Your task to perform on an android device: toggle location history Image 0: 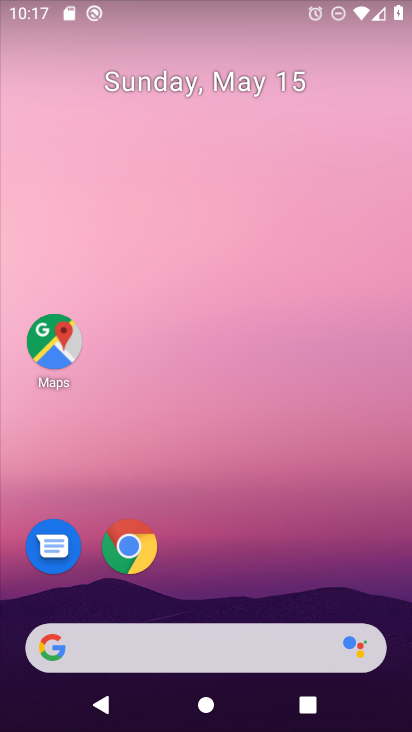
Step 0: drag from (300, 488) to (325, 64)
Your task to perform on an android device: toggle location history Image 1: 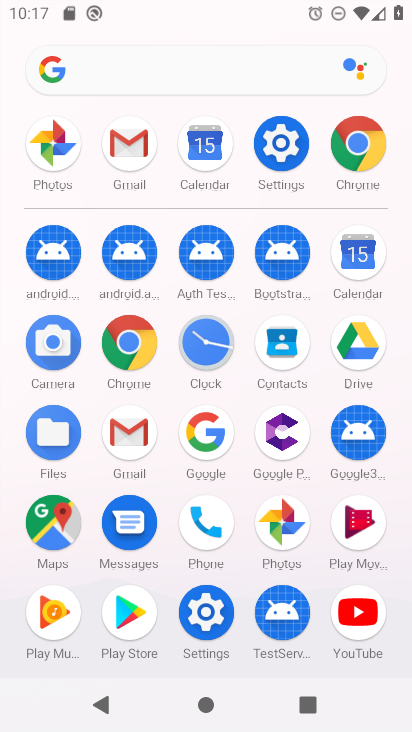
Step 1: click (271, 152)
Your task to perform on an android device: toggle location history Image 2: 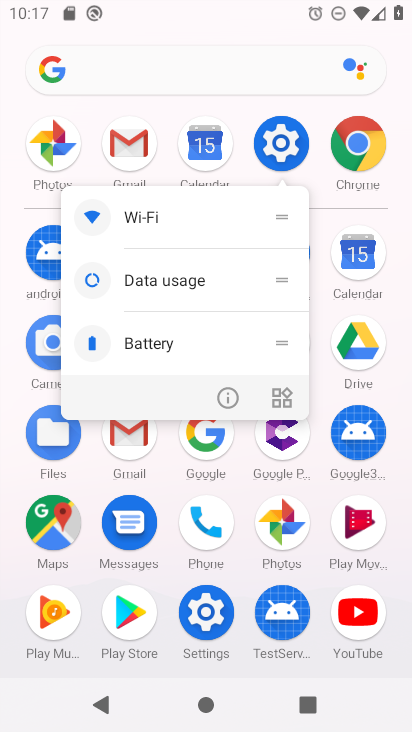
Step 2: click (271, 152)
Your task to perform on an android device: toggle location history Image 3: 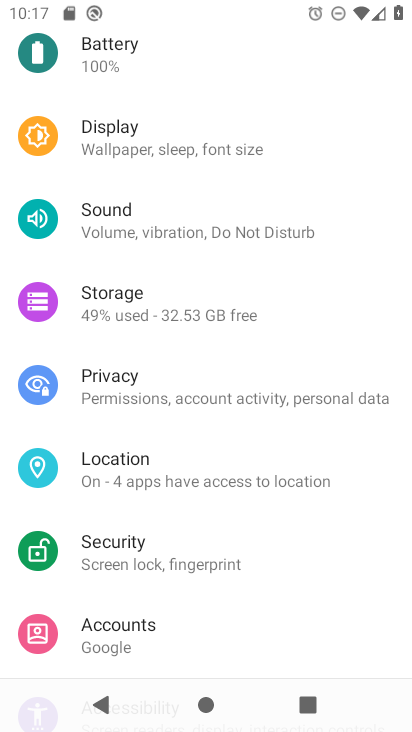
Step 3: drag from (212, 571) to (203, 351)
Your task to perform on an android device: toggle location history Image 4: 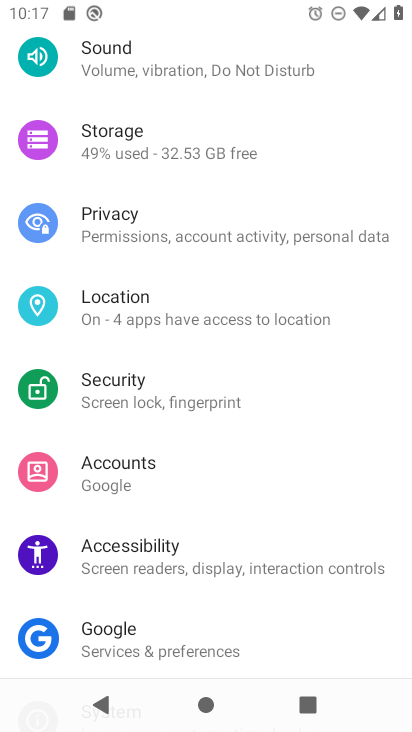
Step 4: click (198, 321)
Your task to perform on an android device: toggle location history Image 5: 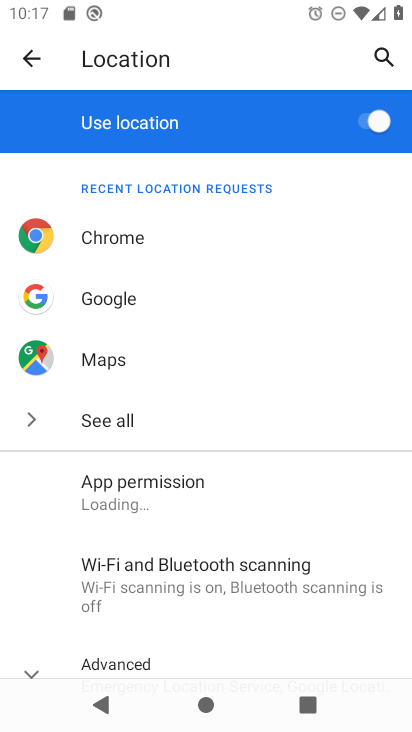
Step 5: drag from (276, 614) to (330, 134)
Your task to perform on an android device: toggle location history Image 6: 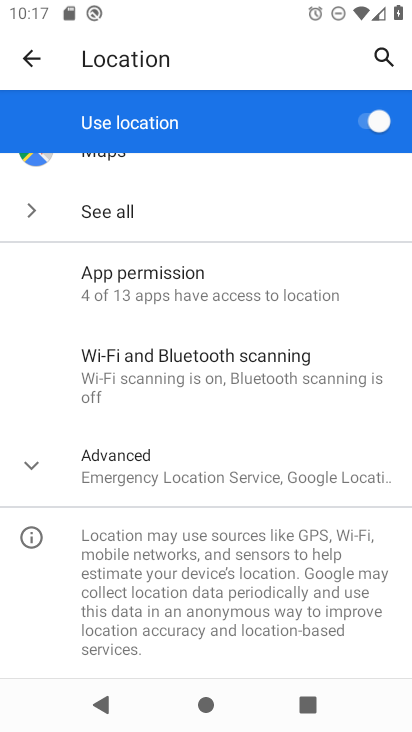
Step 6: click (113, 485)
Your task to perform on an android device: toggle location history Image 7: 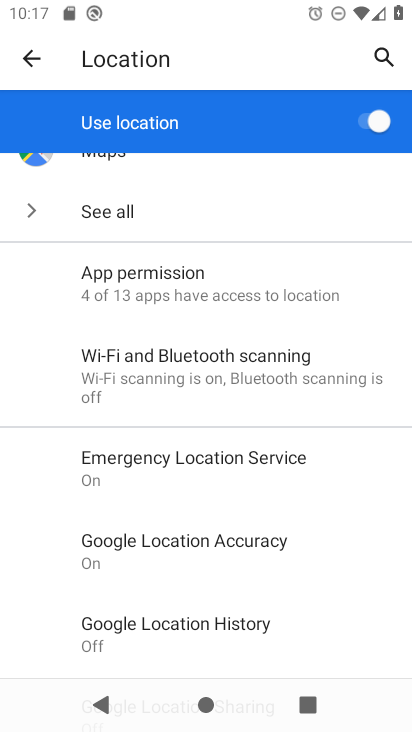
Step 7: drag from (298, 620) to (358, 259)
Your task to perform on an android device: toggle location history Image 8: 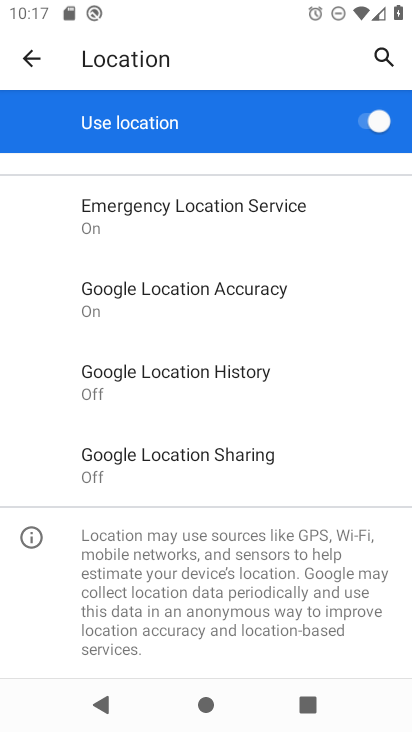
Step 8: click (218, 376)
Your task to perform on an android device: toggle location history Image 9: 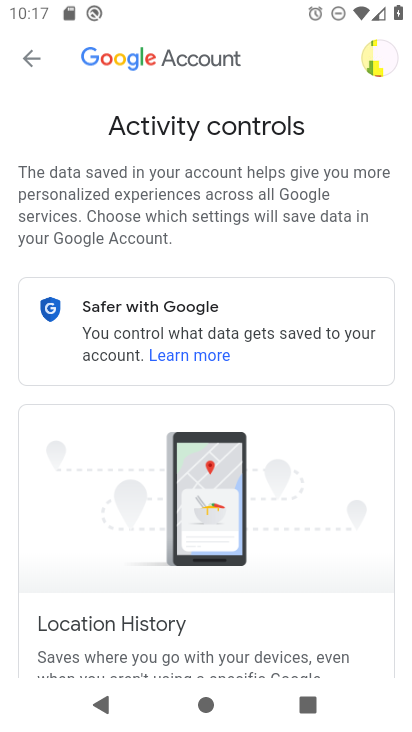
Step 9: drag from (244, 613) to (316, 285)
Your task to perform on an android device: toggle location history Image 10: 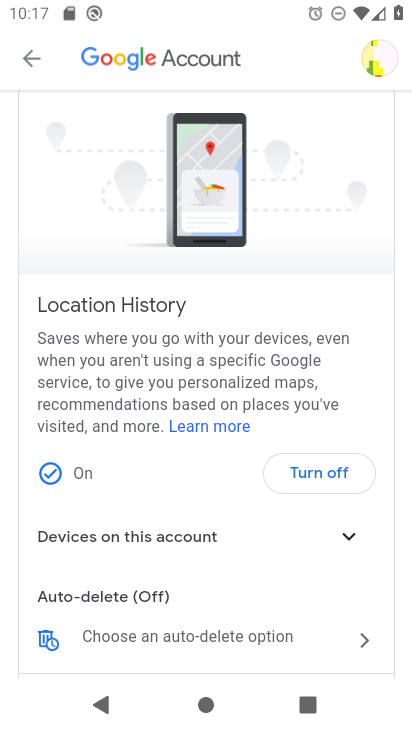
Step 10: click (327, 468)
Your task to perform on an android device: toggle location history Image 11: 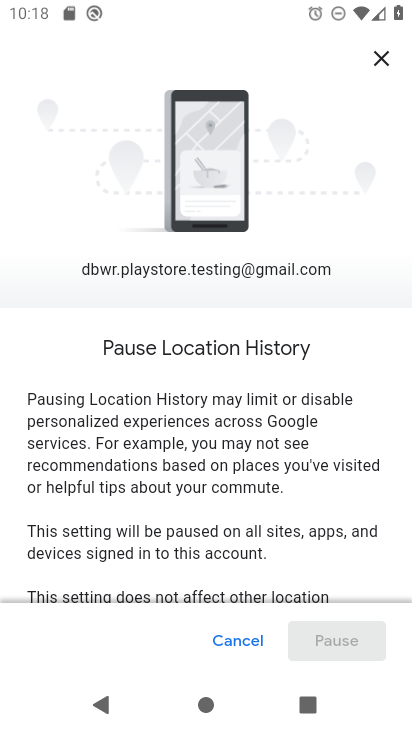
Step 11: drag from (259, 530) to (339, 236)
Your task to perform on an android device: toggle location history Image 12: 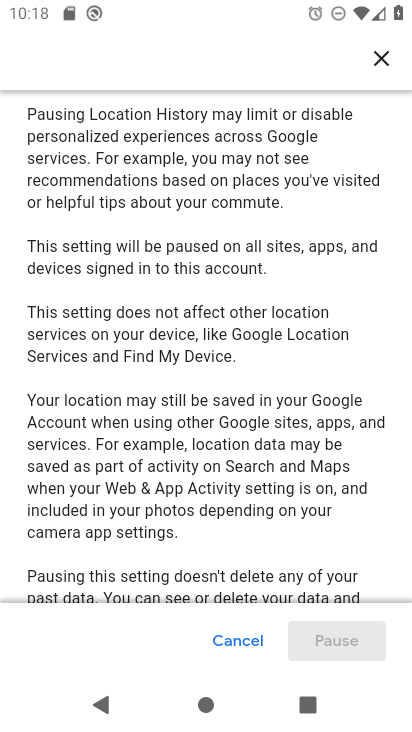
Step 12: drag from (109, 597) to (194, 297)
Your task to perform on an android device: toggle location history Image 13: 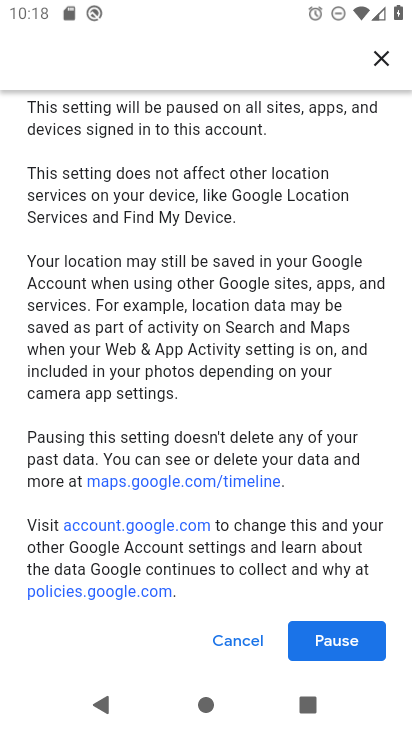
Step 13: click (349, 650)
Your task to perform on an android device: toggle location history Image 14: 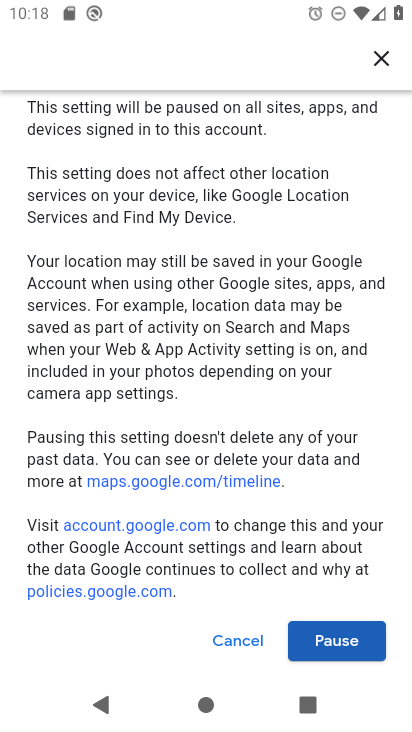
Step 14: click (345, 632)
Your task to perform on an android device: toggle location history Image 15: 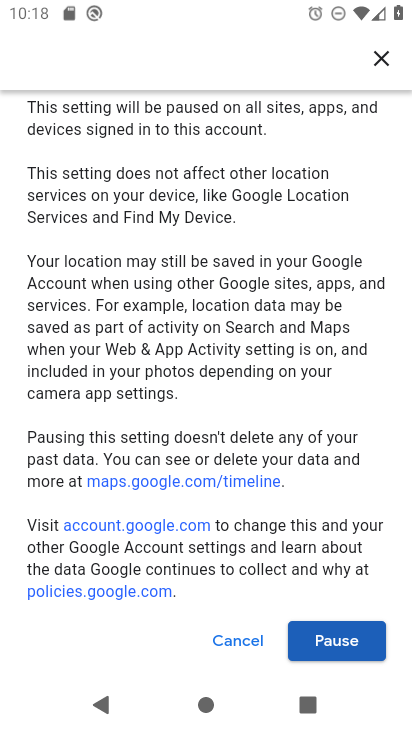
Step 15: click (328, 646)
Your task to perform on an android device: toggle location history Image 16: 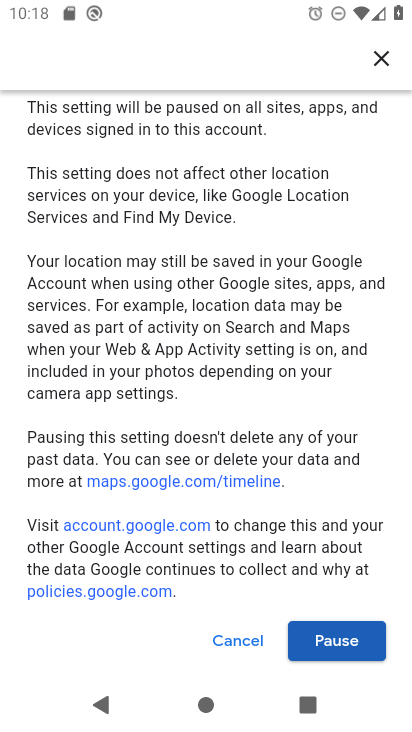
Step 16: click (326, 642)
Your task to perform on an android device: toggle location history Image 17: 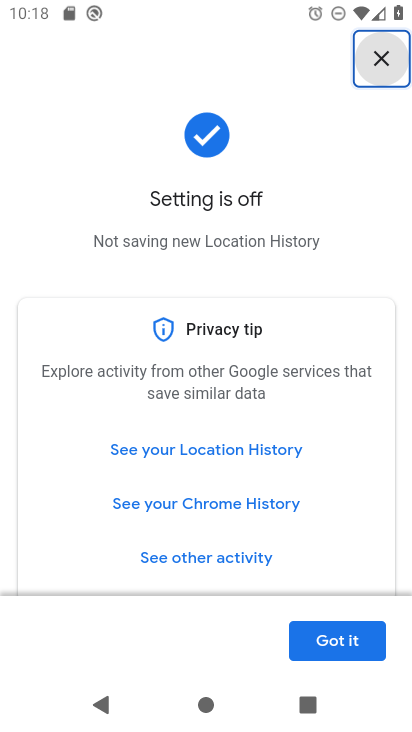
Step 17: task complete